Your task to perform on an android device: star an email in the gmail app Image 0: 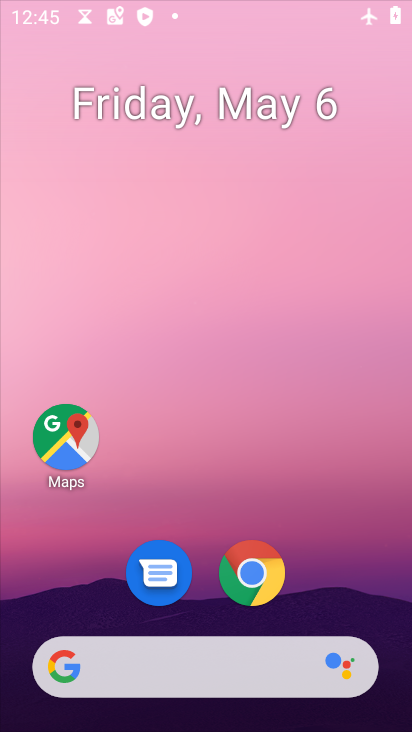
Step 0: drag from (319, 566) to (307, 240)
Your task to perform on an android device: star an email in the gmail app Image 1: 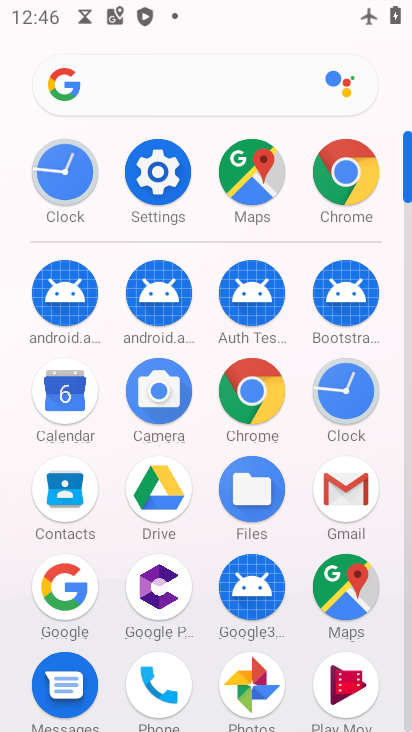
Step 1: click (337, 487)
Your task to perform on an android device: star an email in the gmail app Image 2: 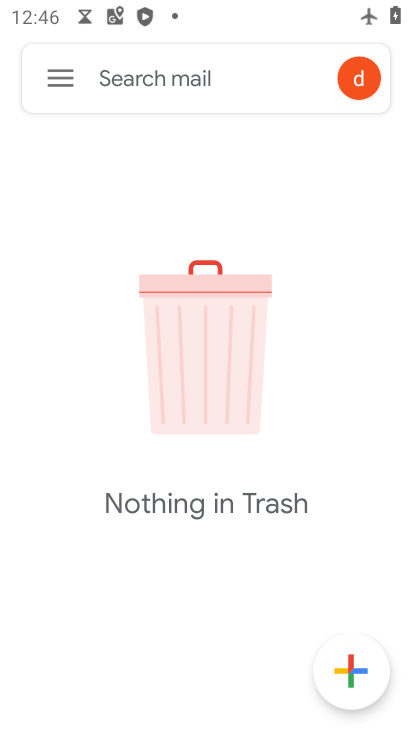
Step 2: click (65, 84)
Your task to perform on an android device: star an email in the gmail app Image 3: 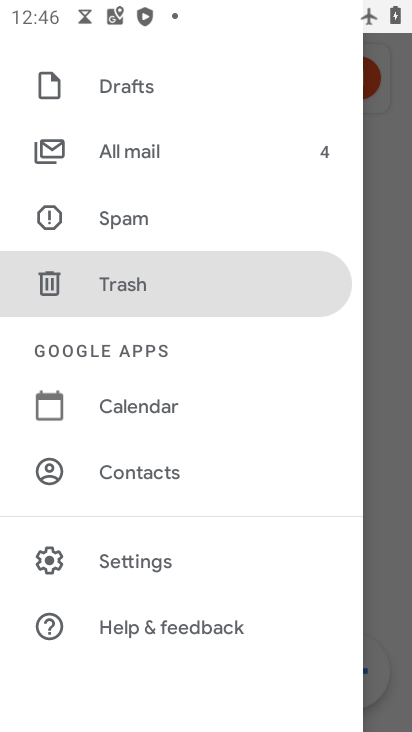
Step 3: drag from (202, 113) to (182, 505)
Your task to perform on an android device: star an email in the gmail app Image 4: 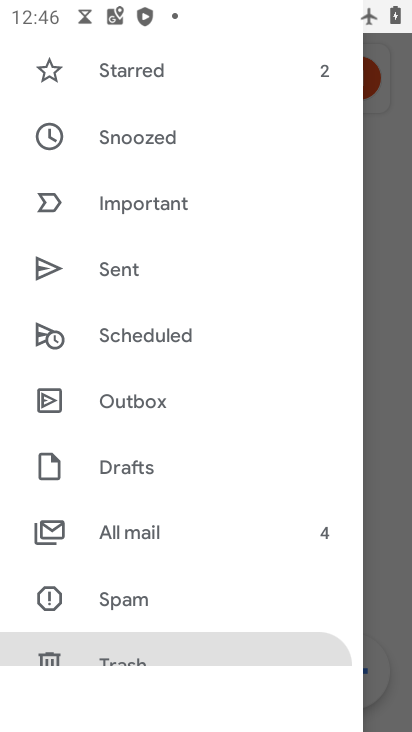
Step 4: drag from (160, 109) to (161, 353)
Your task to perform on an android device: star an email in the gmail app Image 5: 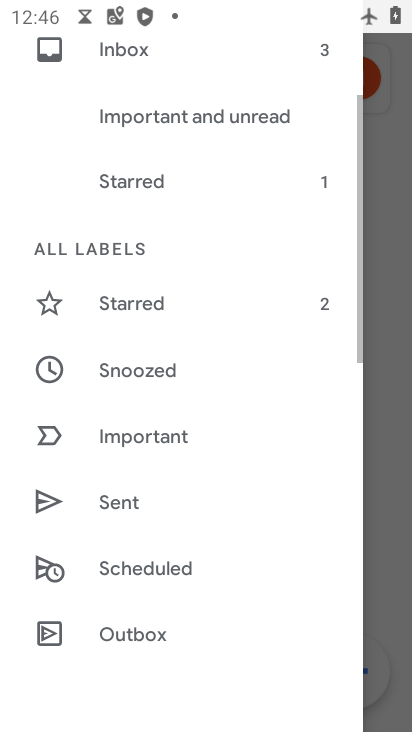
Step 5: click (160, 296)
Your task to perform on an android device: star an email in the gmail app Image 6: 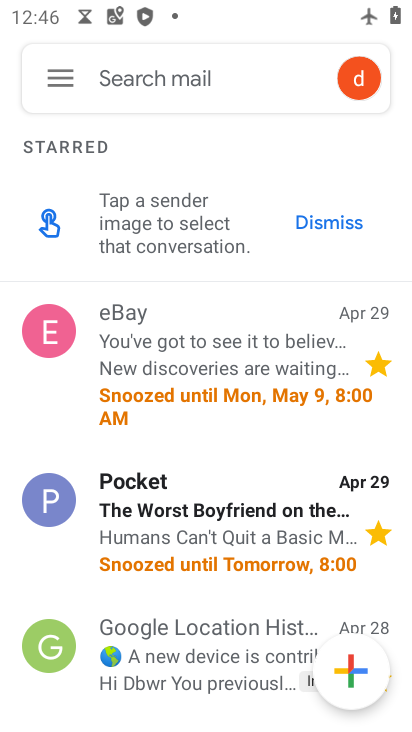
Step 6: task complete